Your task to perform on an android device: Open Chrome and go to the settings page Image 0: 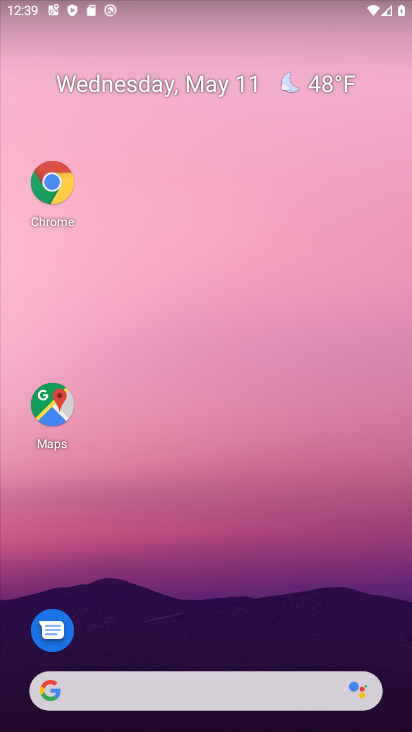
Step 0: click (60, 182)
Your task to perform on an android device: Open Chrome and go to the settings page Image 1: 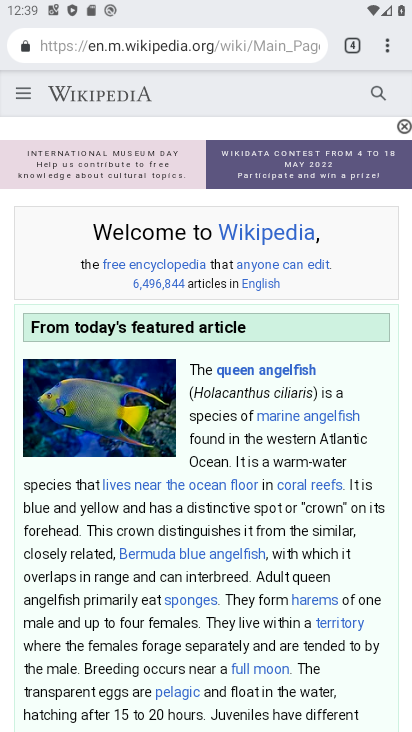
Step 1: click (388, 49)
Your task to perform on an android device: Open Chrome and go to the settings page Image 2: 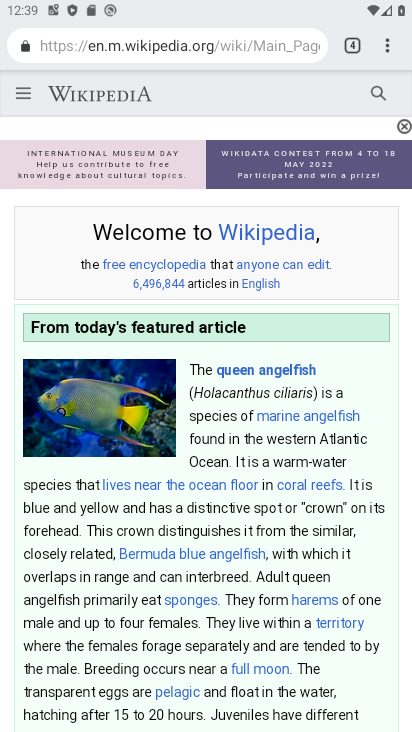
Step 2: task complete